Your task to perform on an android device: remove spam from my inbox in the gmail app Image 0: 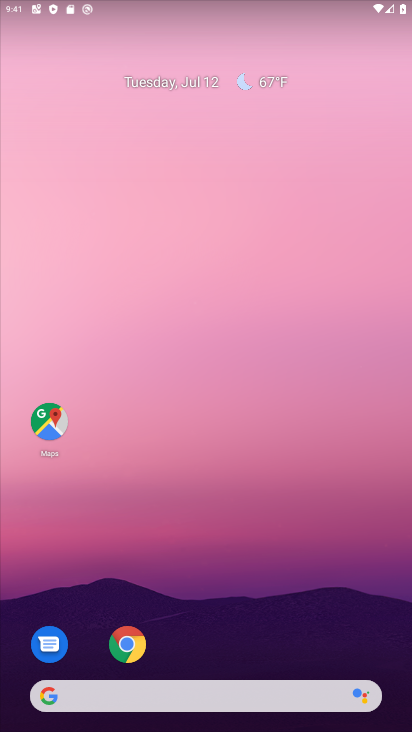
Step 0: drag from (181, 640) to (241, 32)
Your task to perform on an android device: remove spam from my inbox in the gmail app Image 1: 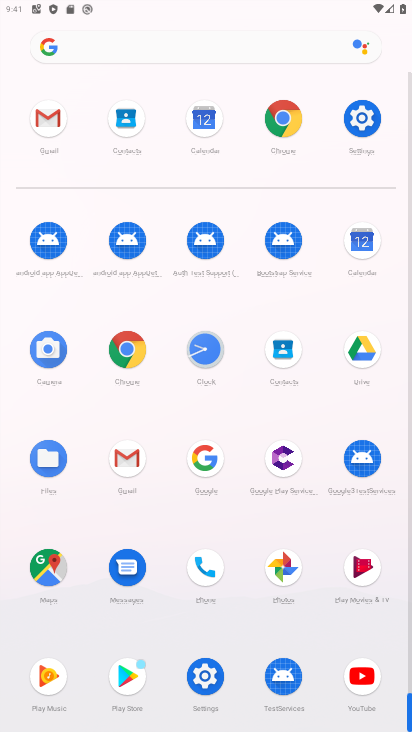
Step 1: click (124, 473)
Your task to perform on an android device: remove spam from my inbox in the gmail app Image 2: 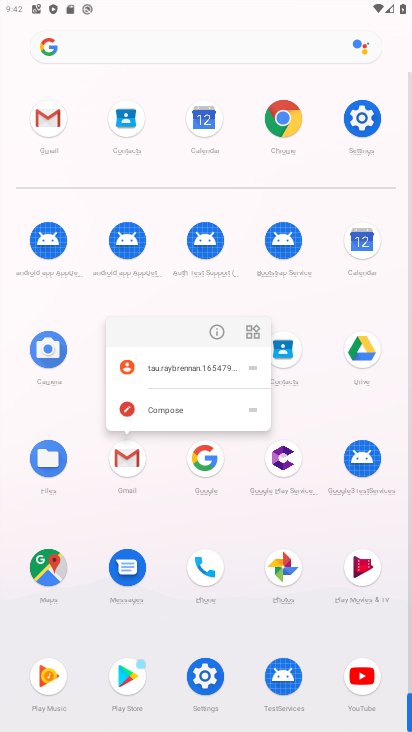
Step 2: click (210, 323)
Your task to perform on an android device: remove spam from my inbox in the gmail app Image 3: 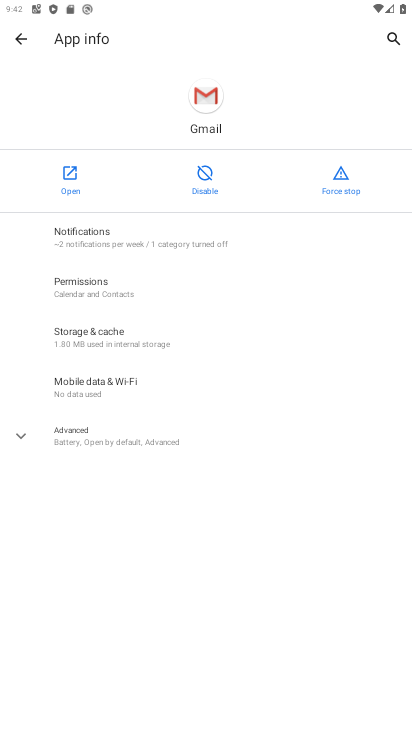
Step 3: click (63, 176)
Your task to perform on an android device: remove spam from my inbox in the gmail app Image 4: 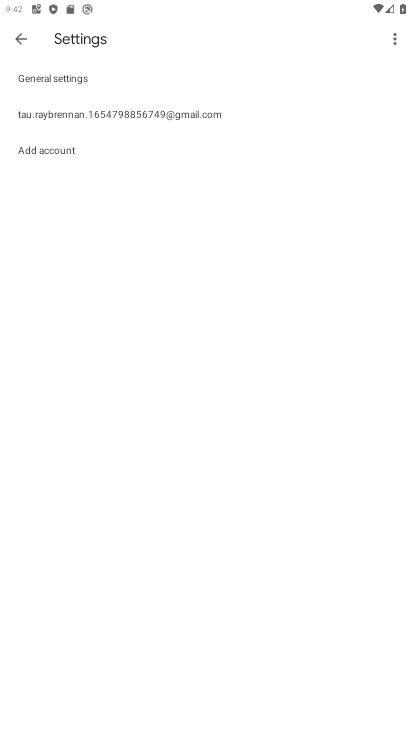
Step 4: click (15, 33)
Your task to perform on an android device: remove spam from my inbox in the gmail app Image 5: 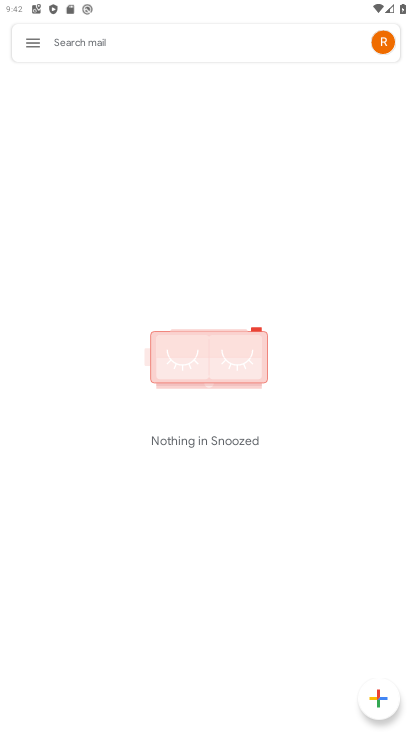
Step 5: click (39, 44)
Your task to perform on an android device: remove spam from my inbox in the gmail app Image 6: 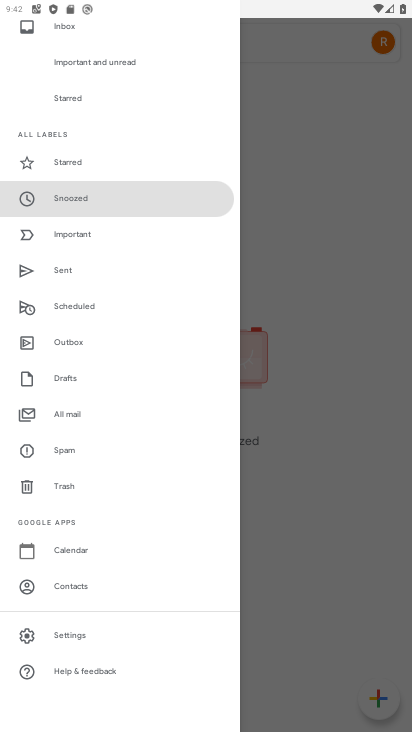
Step 6: click (67, 452)
Your task to perform on an android device: remove spam from my inbox in the gmail app Image 7: 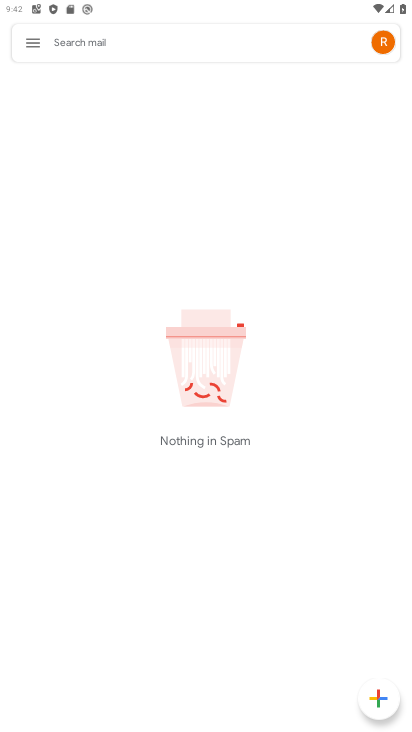
Step 7: drag from (124, 555) to (214, 31)
Your task to perform on an android device: remove spam from my inbox in the gmail app Image 8: 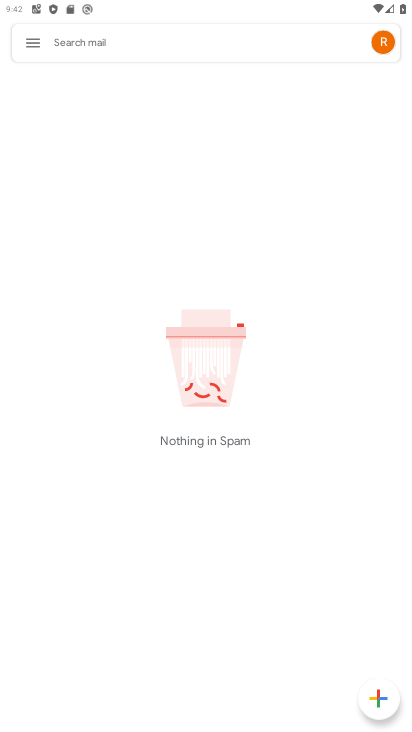
Step 8: click (29, 45)
Your task to perform on an android device: remove spam from my inbox in the gmail app Image 9: 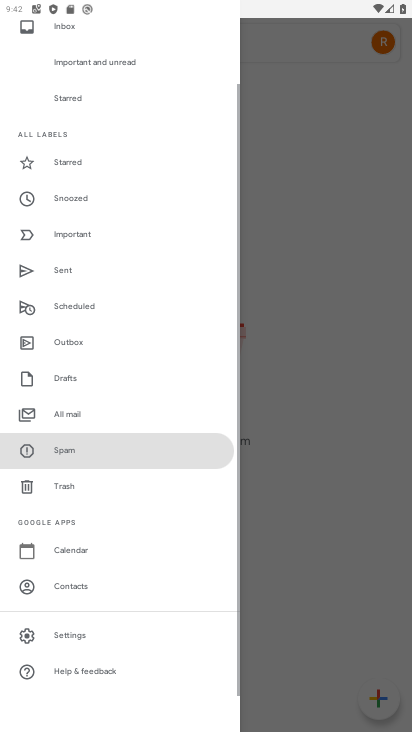
Step 9: drag from (126, 89) to (179, 522)
Your task to perform on an android device: remove spam from my inbox in the gmail app Image 10: 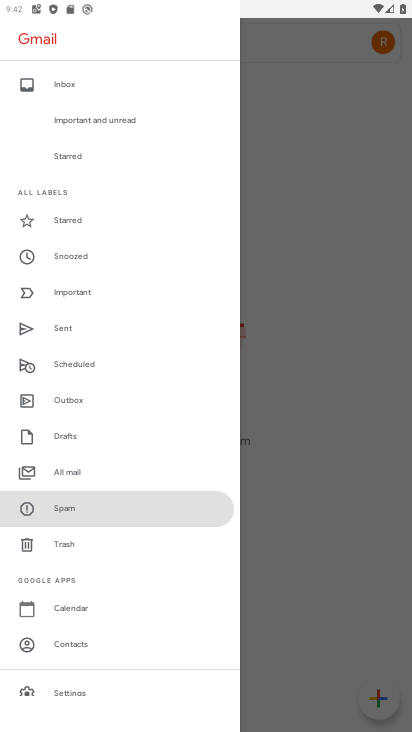
Step 10: click (83, 83)
Your task to perform on an android device: remove spam from my inbox in the gmail app Image 11: 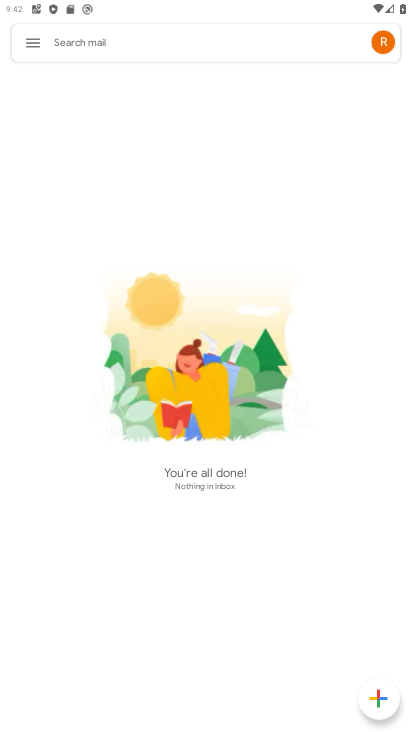
Step 11: task complete